Your task to perform on an android device: change notification settings in the gmail app Image 0: 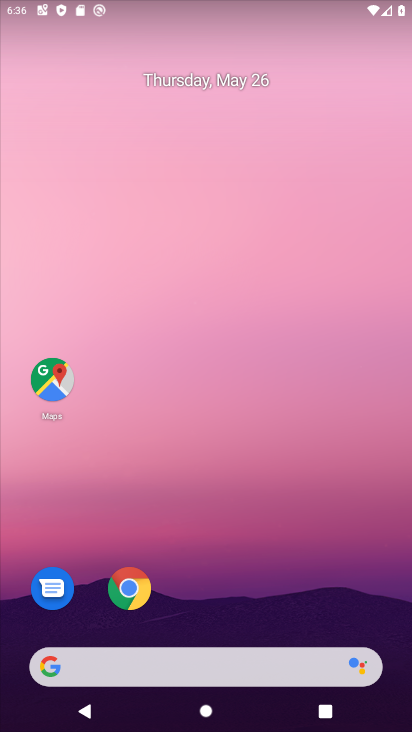
Step 0: drag from (354, 619) to (316, 17)
Your task to perform on an android device: change notification settings in the gmail app Image 1: 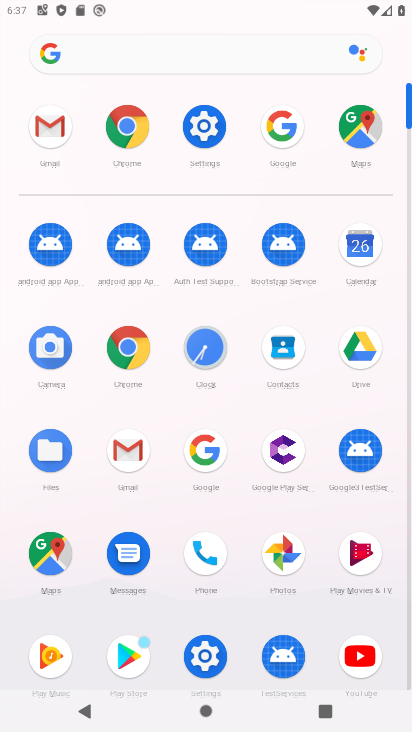
Step 1: click (135, 463)
Your task to perform on an android device: change notification settings in the gmail app Image 2: 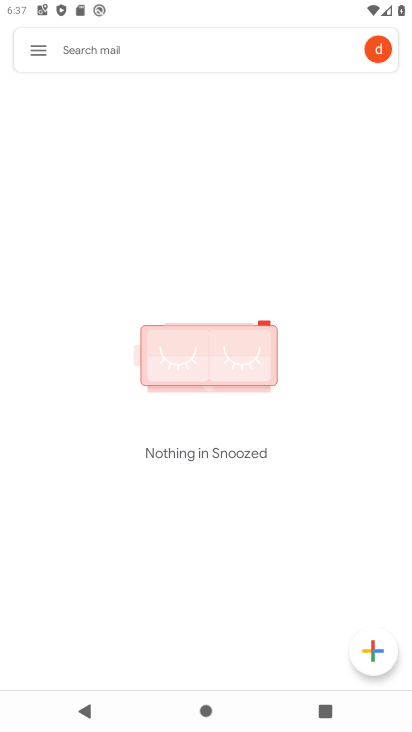
Step 2: click (33, 42)
Your task to perform on an android device: change notification settings in the gmail app Image 3: 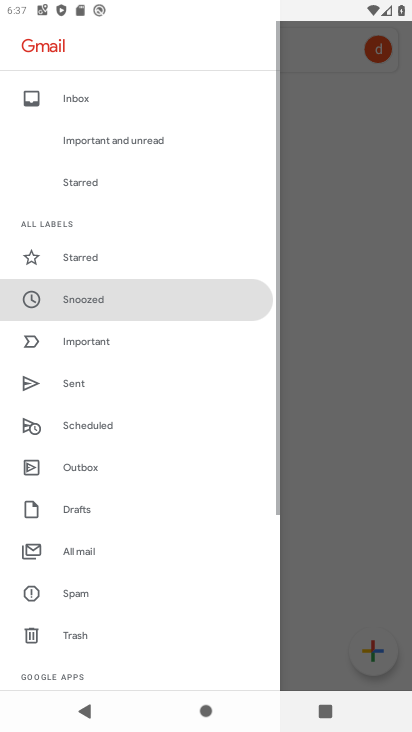
Step 3: drag from (35, 660) to (131, 132)
Your task to perform on an android device: change notification settings in the gmail app Image 4: 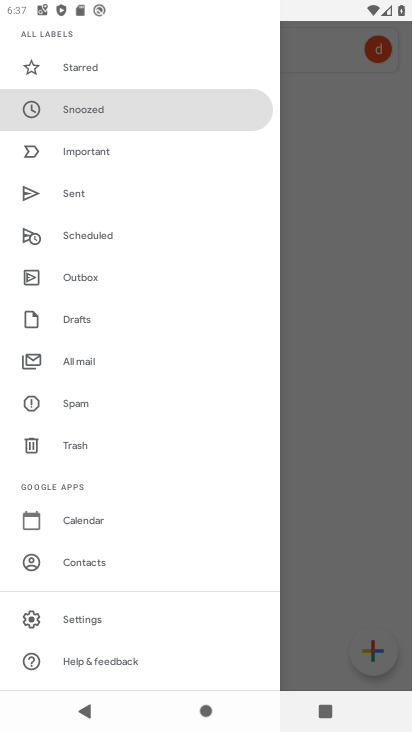
Step 4: click (72, 622)
Your task to perform on an android device: change notification settings in the gmail app Image 5: 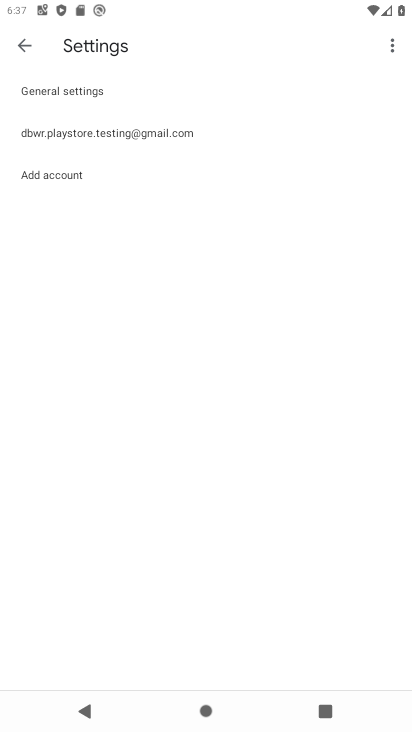
Step 5: click (177, 148)
Your task to perform on an android device: change notification settings in the gmail app Image 6: 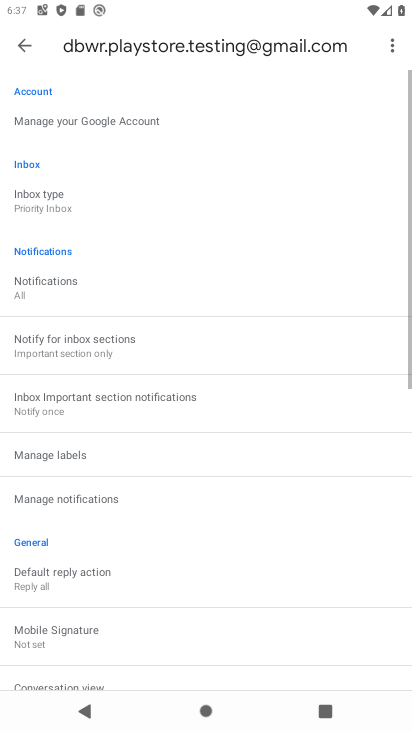
Step 6: click (66, 295)
Your task to perform on an android device: change notification settings in the gmail app Image 7: 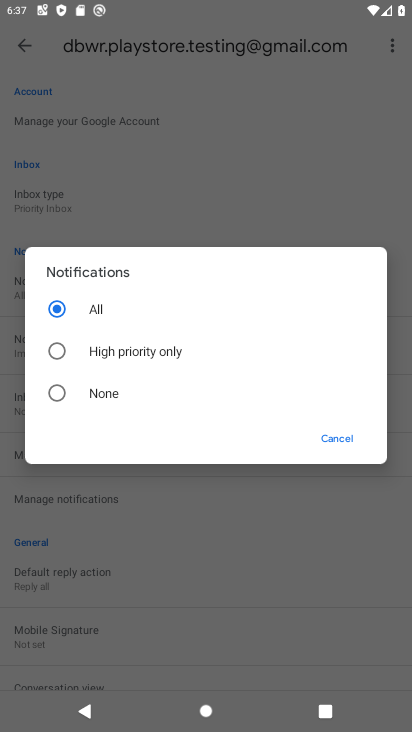
Step 7: click (74, 393)
Your task to perform on an android device: change notification settings in the gmail app Image 8: 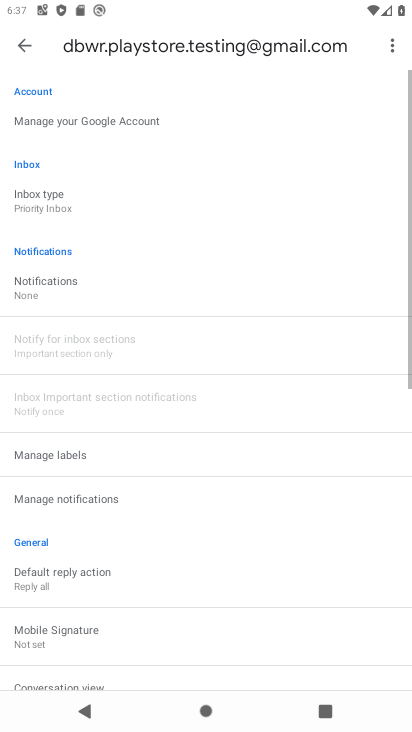
Step 8: task complete